Your task to perform on an android device: add a contact Image 0: 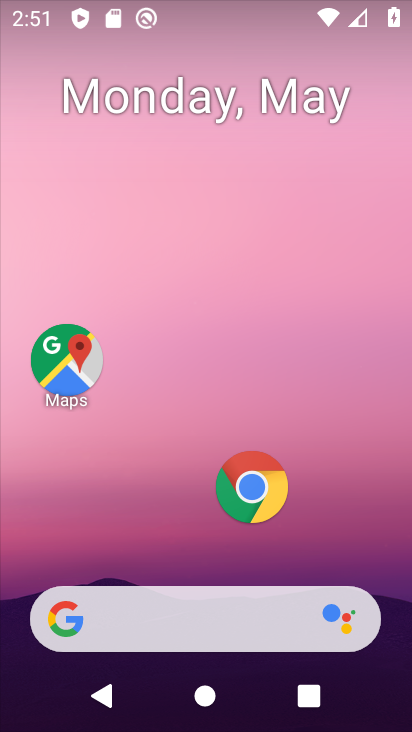
Step 0: drag from (177, 560) to (277, 34)
Your task to perform on an android device: add a contact Image 1: 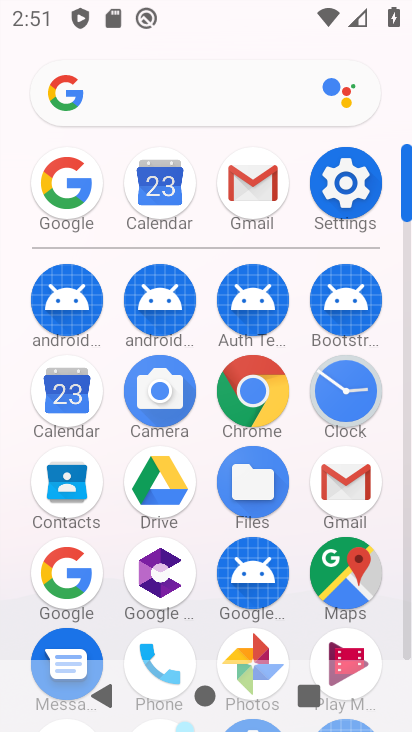
Step 1: click (52, 491)
Your task to perform on an android device: add a contact Image 2: 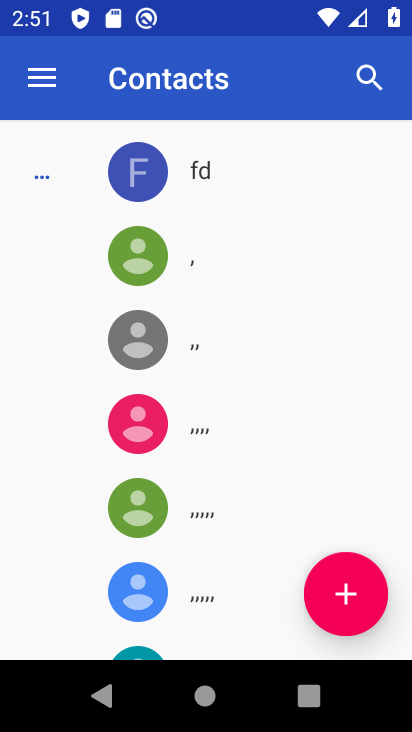
Step 2: click (336, 595)
Your task to perform on an android device: add a contact Image 3: 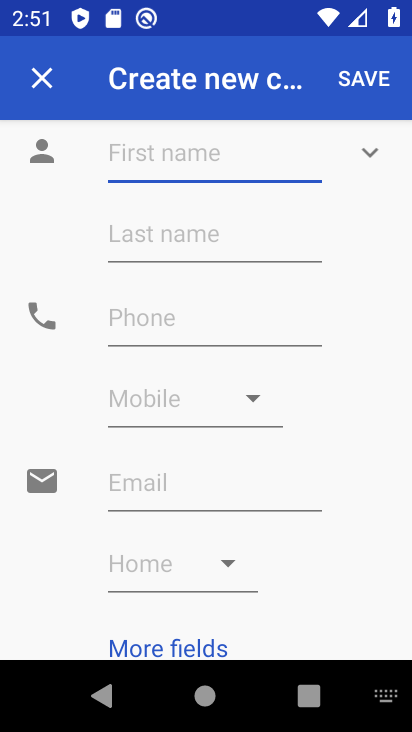
Step 3: type "zxcvbnm"
Your task to perform on an android device: add a contact Image 4: 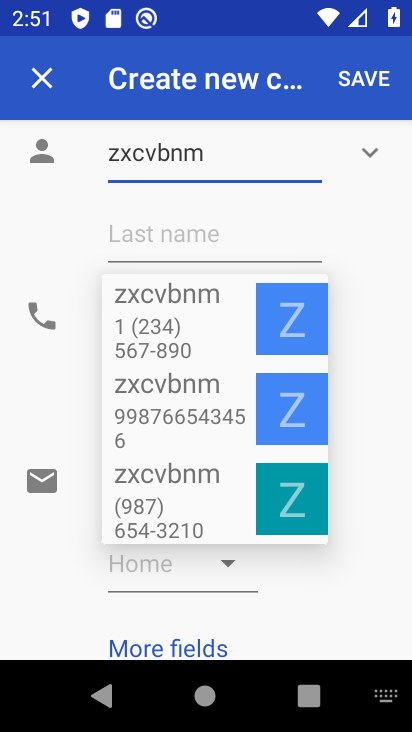
Step 4: click (86, 300)
Your task to perform on an android device: add a contact Image 5: 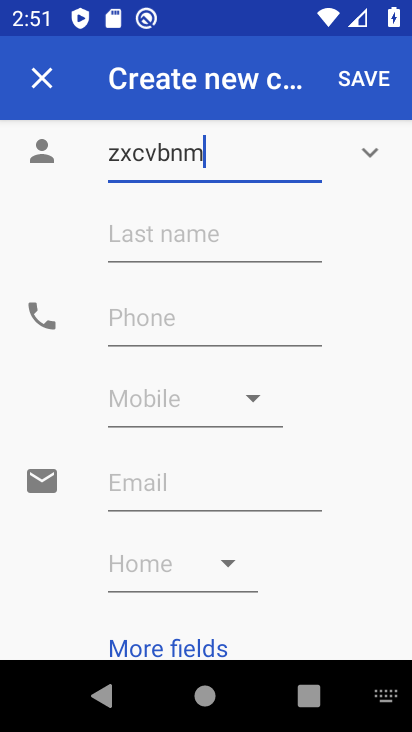
Step 5: click (160, 306)
Your task to perform on an android device: add a contact Image 6: 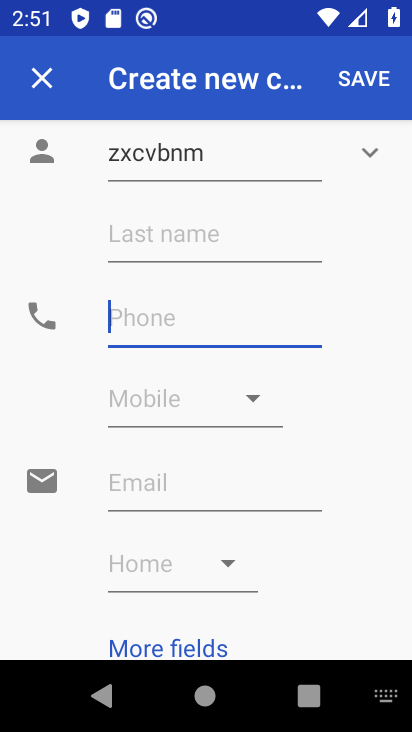
Step 6: type "6789098766"
Your task to perform on an android device: add a contact Image 7: 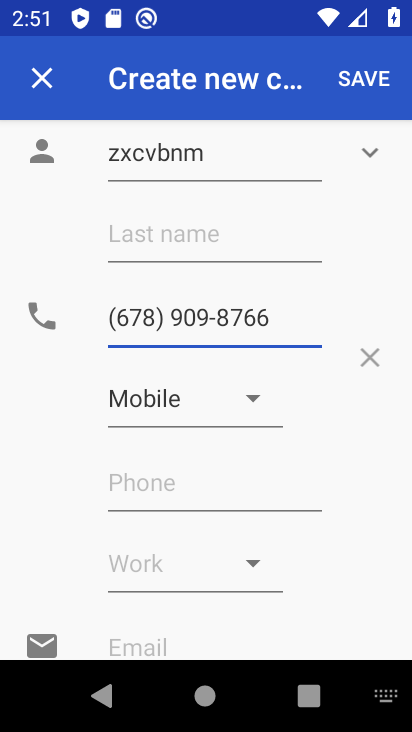
Step 7: click (364, 89)
Your task to perform on an android device: add a contact Image 8: 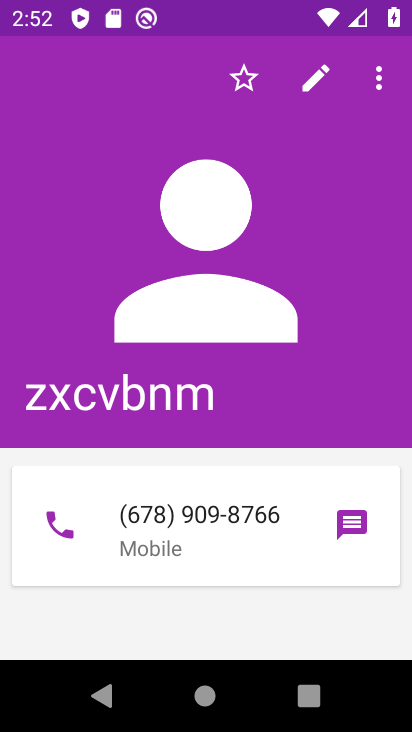
Step 8: task complete